Your task to perform on an android device: turn on the 12-hour format for clock Image 0: 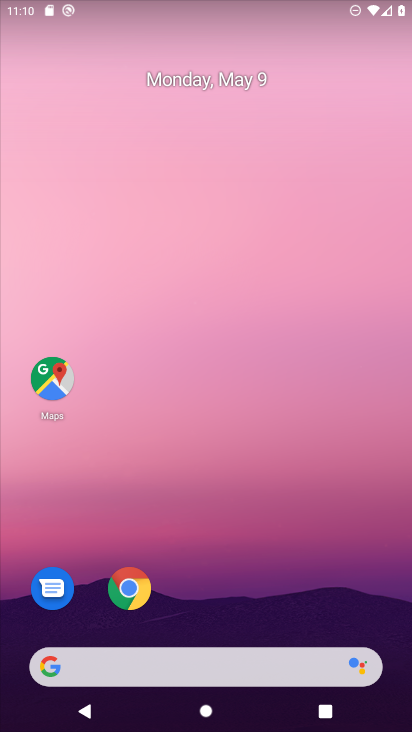
Step 0: drag from (267, 568) to (187, 86)
Your task to perform on an android device: turn on the 12-hour format for clock Image 1: 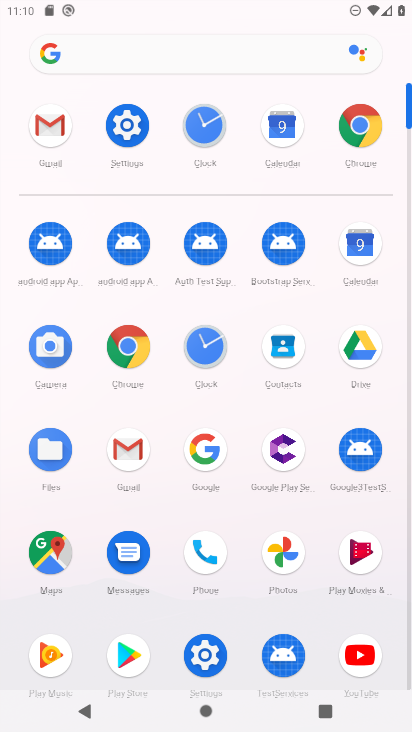
Step 1: click (190, 128)
Your task to perform on an android device: turn on the 12-hour format for clock Image 2: 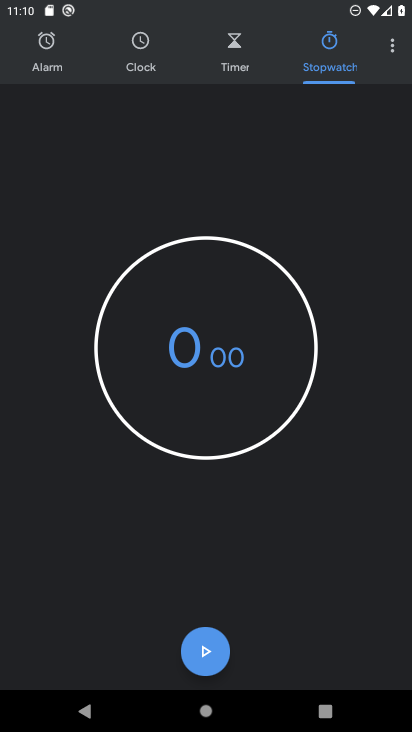
Step 2: click (380, 50)
Your task to perform on an android device: turn on the 12-hour format for clock Image 3: 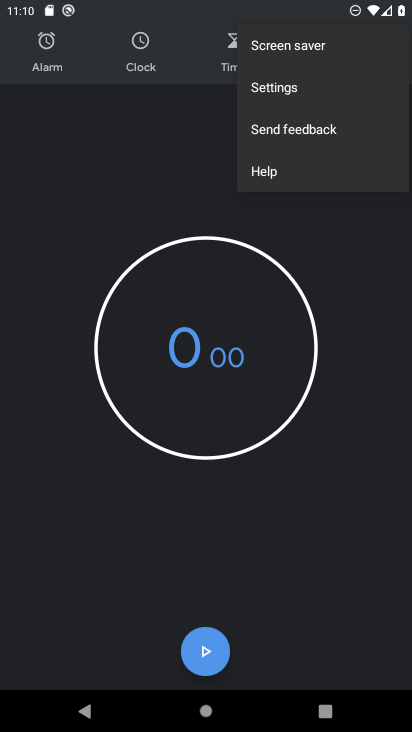
Step 3: click (294, 95)
Your task to perform on an android device: turn on the 12-hour format for clock Image 4: 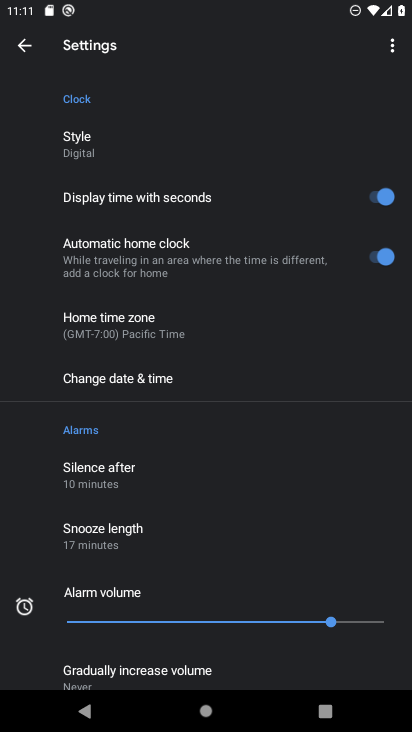
Step 4: drag from (221, 585) to (219, 551)
Your task to perform on an android device: turn on the 12-hour format for clock Image 5: 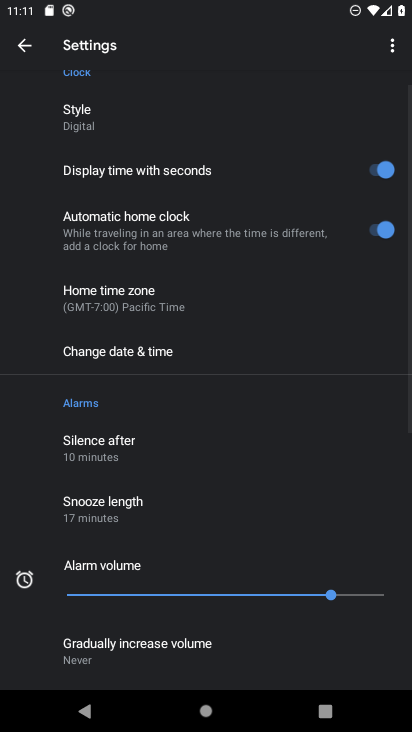
Step 5: drag from (243, 540) to (241, 175)
Your task to perform on an android device: turn on the 12-hour format for clock Image 6: 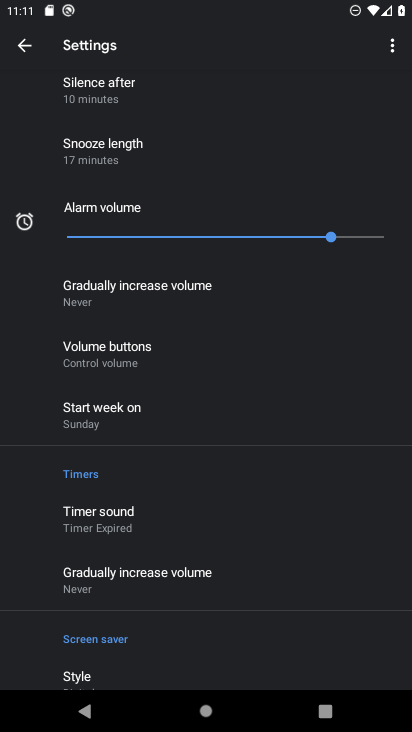
Step 6: click (190, 527)
Your task to perform on an android device: turn on the 12-hour format for clock Image 7: 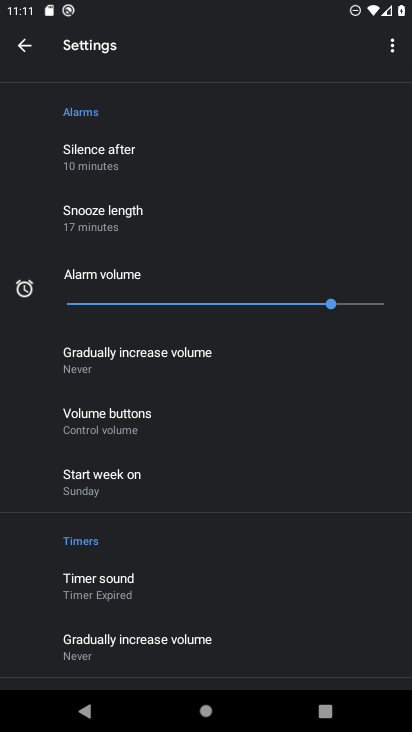
Step 7: drag from (199, 203) to (263, 335)
Your task to perform on an android device: turn on the 12-hour format for clock Image 8: 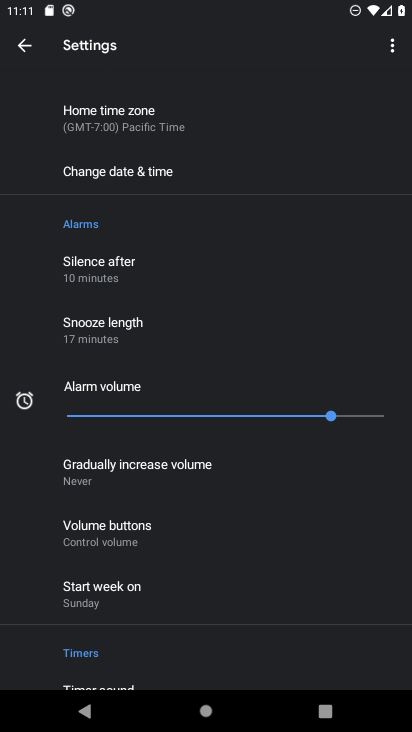
Step 8: click (155, 176)
Your task to perform on an android device: turn on the 12-hour format for clock Image 9: 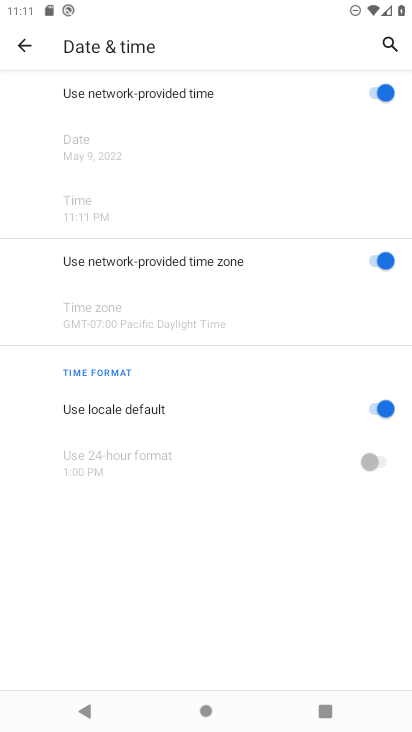
Step 9: task complete